Your task to perform on an android device: toggle location history Image 0: 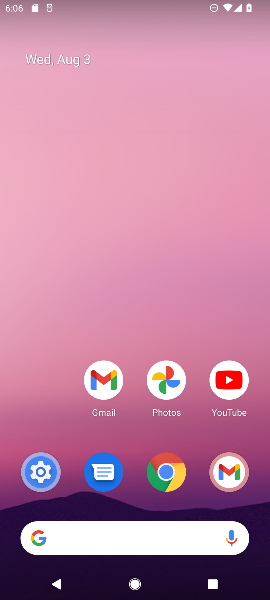
Step 0: drag from (203, 498) to (20, 9)
Your task to perform on an android device: toggle location history Image 1: 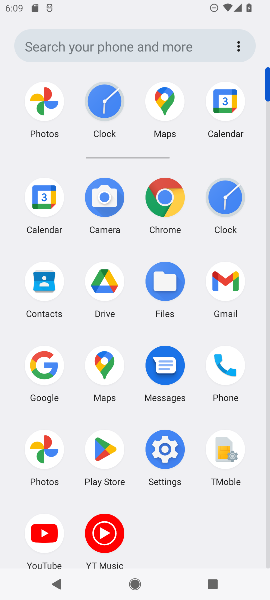
Step 1: click (176, 456)
Your task to perform on an android device: toggle location history Image 2: 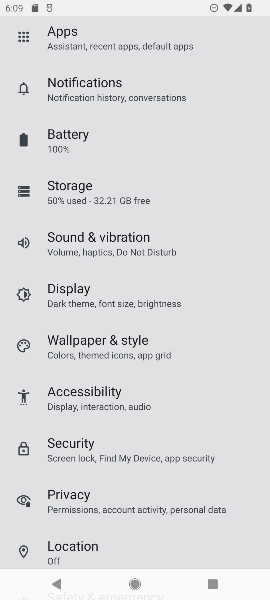
Step 2: click (104, 549)
Your task to perform on an android device: toggle location history Image 3: 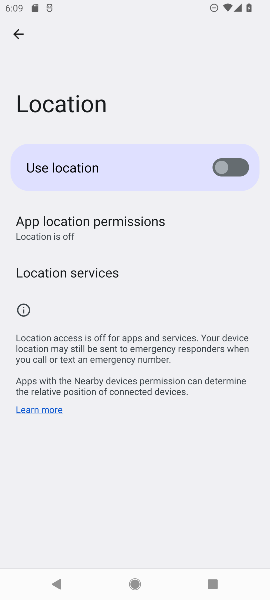
Step 3: click (80, 262)
Your task to perform on an android device: toggle location history Image 4: 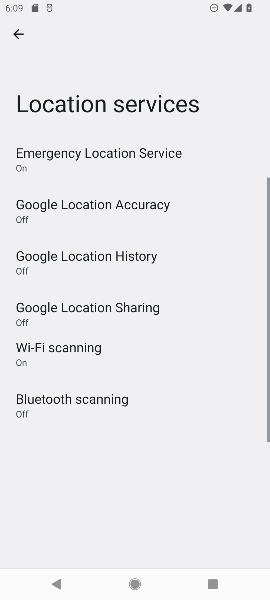
Step 4: click (135, 246)
Your task to perform on an android device: toggle location history Image 5: 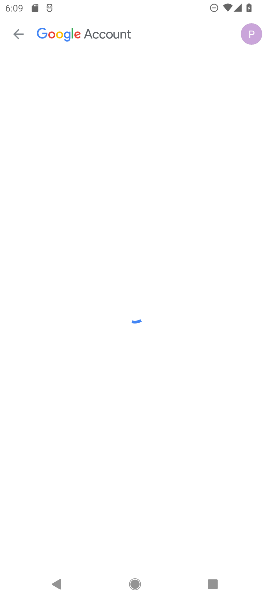
Step 5: task complete